Your task to perform on an android device: turn smart compose on in the gmail app Image 0: 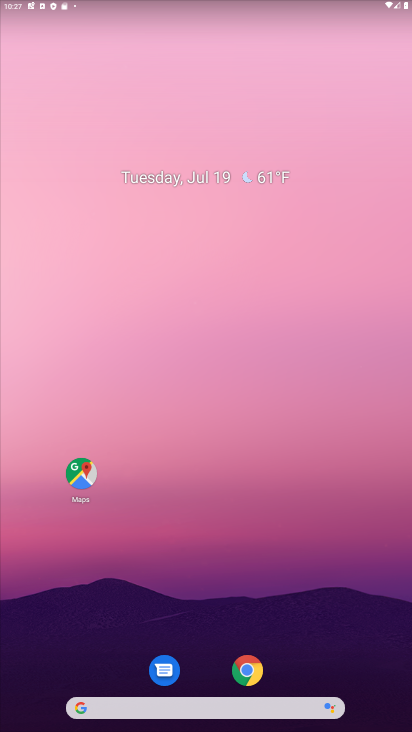
Step 0: drag from (164, 612) to (206, 232)
Your task to perform on an android device: turn smart compose on in the gmail app Image 1: 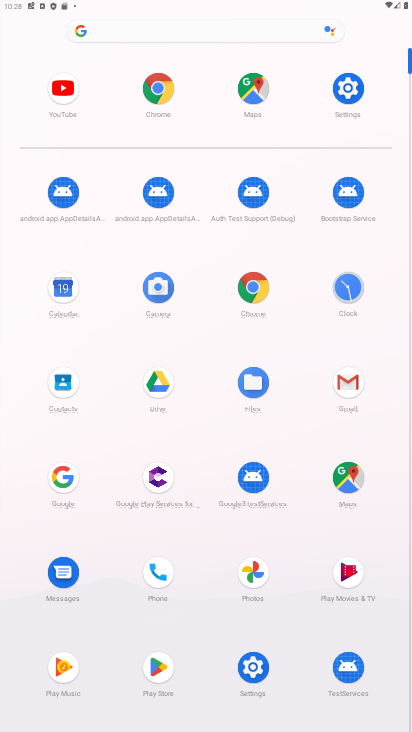
Step 1: click (350, 387)
Your task to perform on an android device: turn smart compose on in the gmail app Image 2: 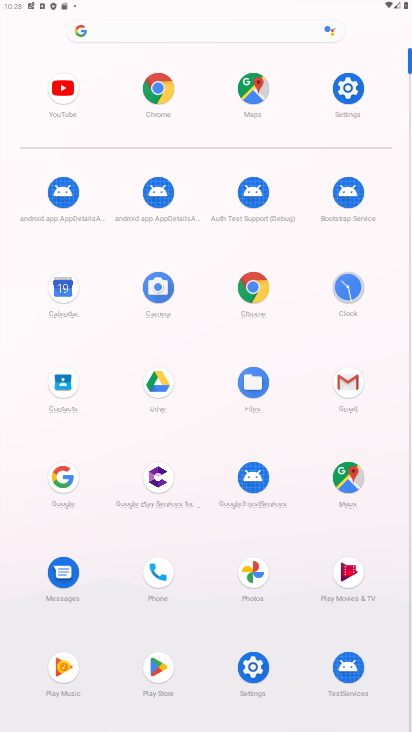
Step 2: click (350, 387)
Your task to perform on an android device: turn smart compose on in the gmail app Image 3: 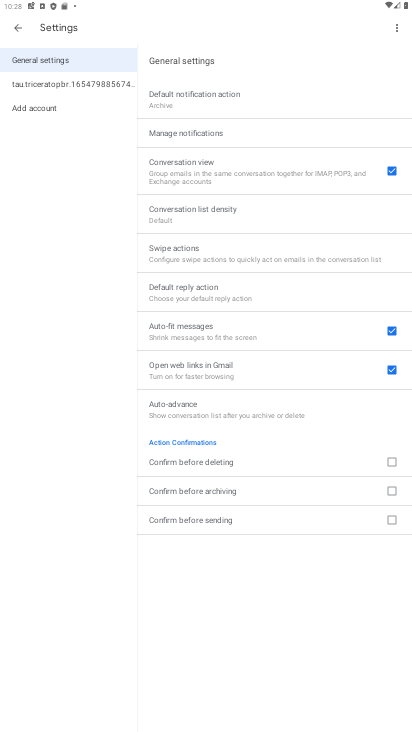
Step 3: click (106, 86)
Your task to perform on an android device: turn smart compose on in the gmail app Image 4: 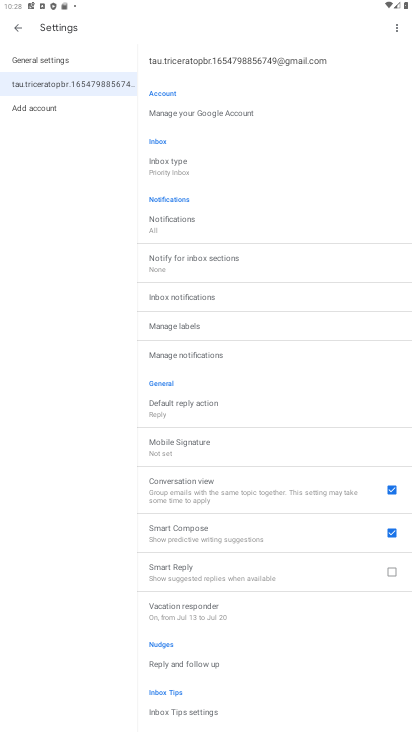
Step 4: task complete